Your task to perform on an android device: Open network settings Image 0: 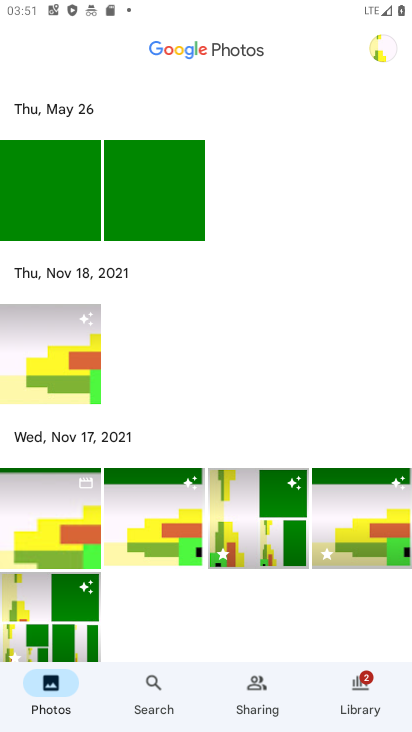
Step 0: press home button
Your task to perform on an android device: Open network settings Image 1: 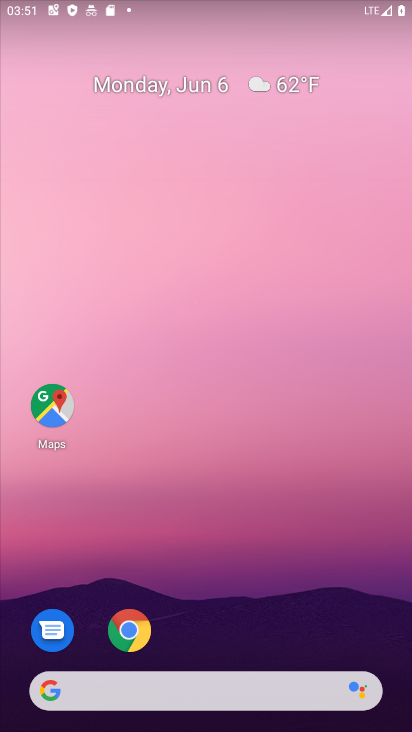
Step 1: drag from (283, 635) to (247, 267)
Your task to perform on an android device: Open network settings Image 2: 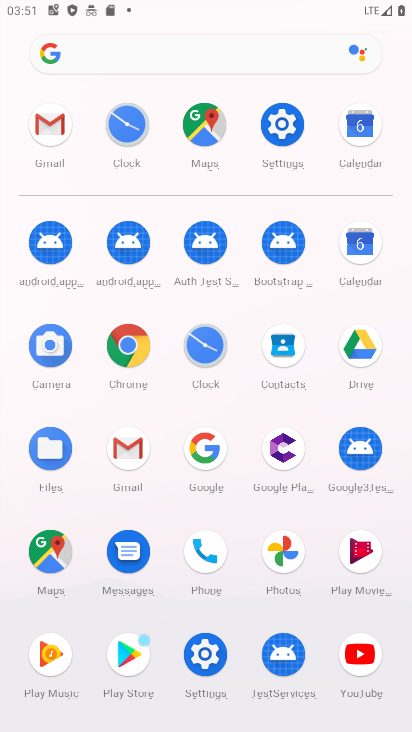
Step 2: click (282, 121)
Your task to perform on an android device: Open network settings Image 3: 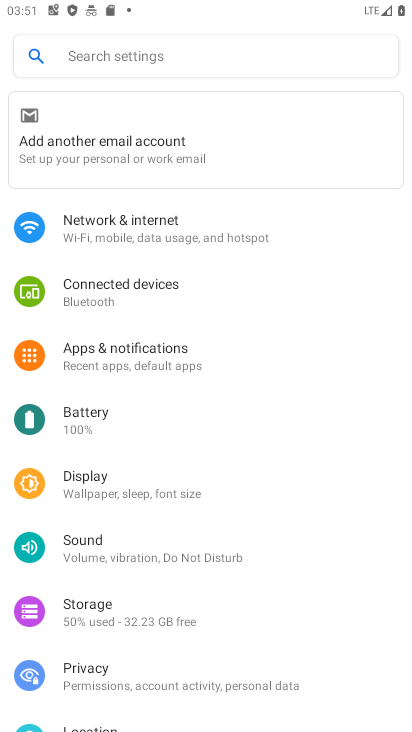
Step 3: click (168, 243)
Your task to perform on an android device: Open network settings Image 4: 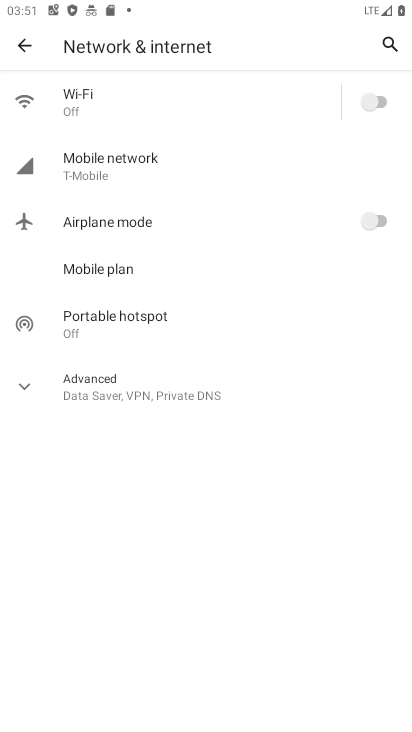
Step 4: task complete